Your task to perform on an android device: add a contact Image 0: 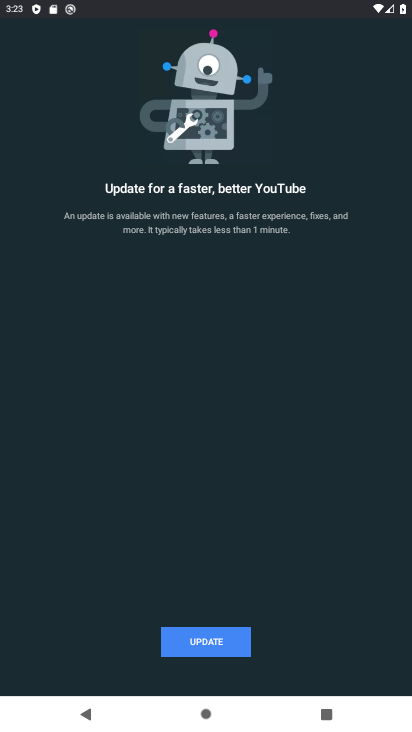
Step 0: press back button
Your task to perform on an android device: add a contact Image 1: 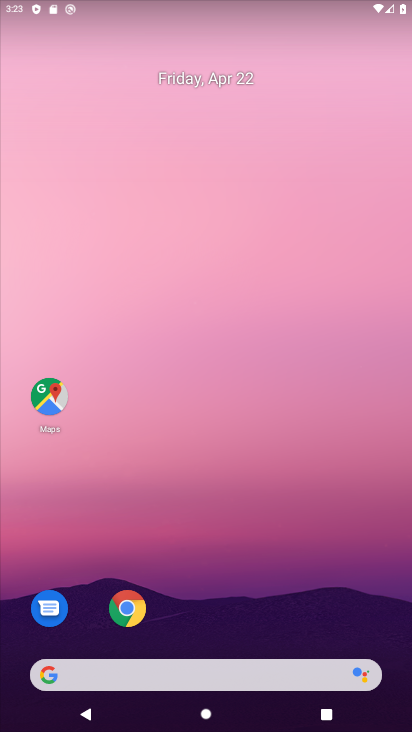
Step 1: drag from (283, 610) to (247, 132)
Your task to perform on an android device: add a contact Image 2: 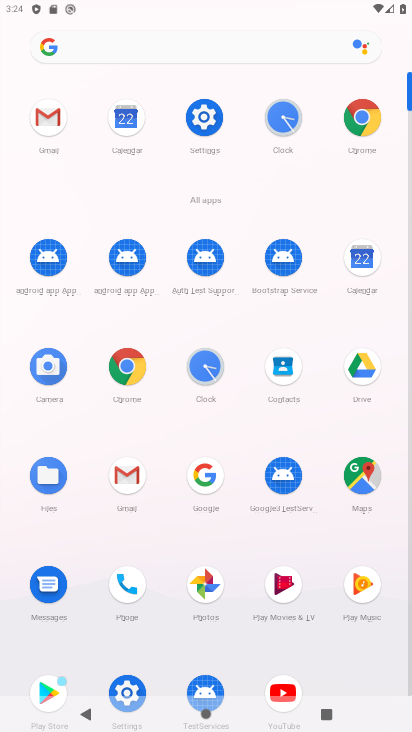
Step 2: click (291, 379)
Your task to perform on an android device: add a contact Image 3: 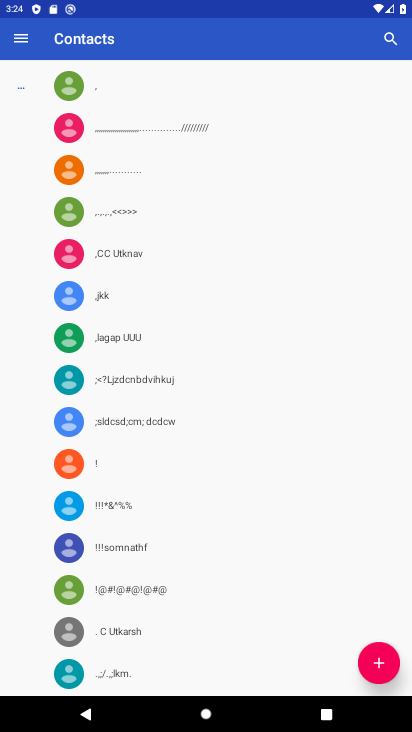
Step 3: click (392, 650)
Your task to perform on an android device: add a contact Image 4: 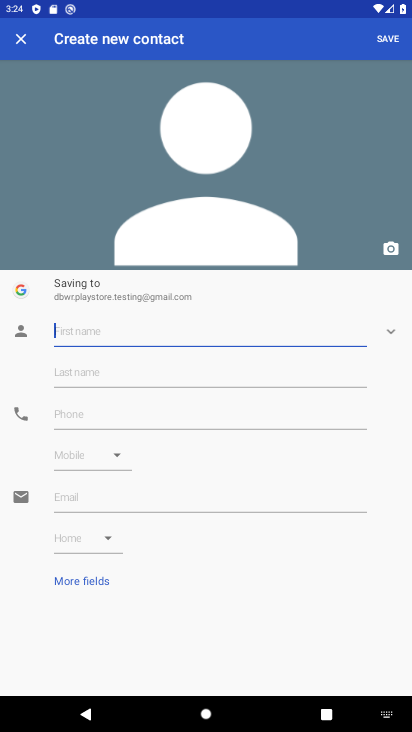
Step 4: click (221, 324)
Your task to perform on an android device: add a contact Image 5: 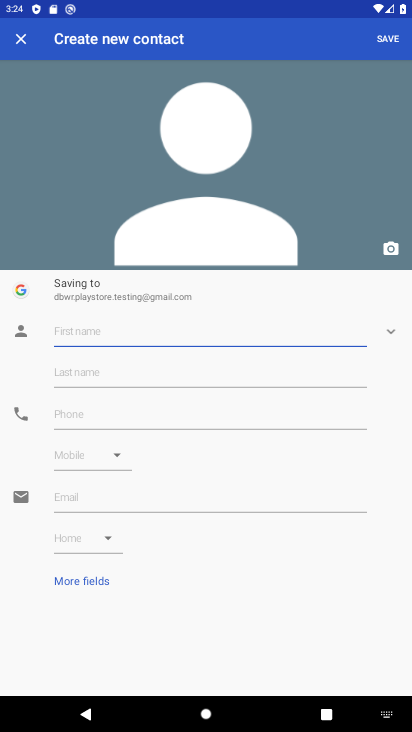
Step 5: type "hjkji"
Your task to perform on an android device: add a contact Image 6: 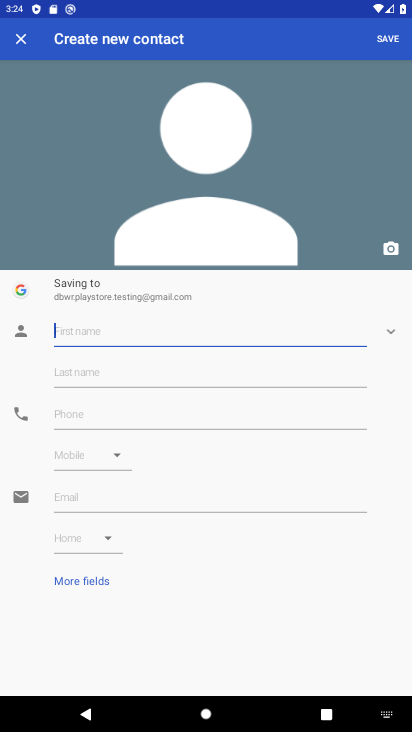
Step 6: click (365, 412)
Your task to perform on an android device: add a contact Image 7: 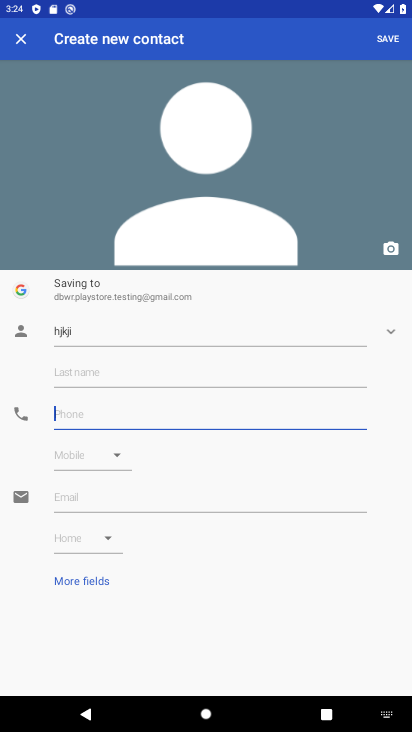
Step 7: type "53535"
Your task to perform on an android device: add a contact Image 8: 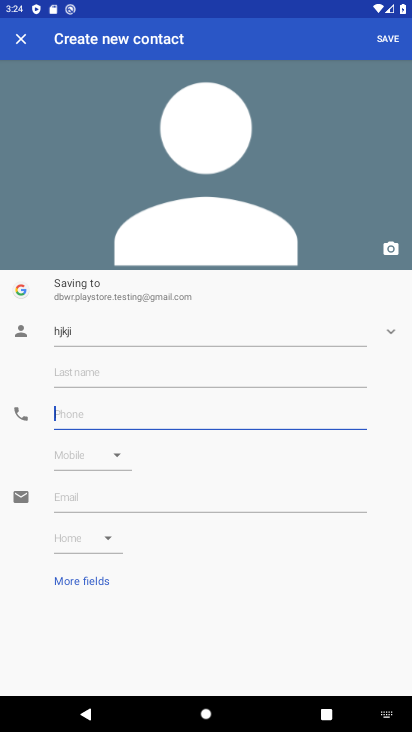
Step 8: click (260, 645)
Your task to perform on an android device: add a contact Image 9: 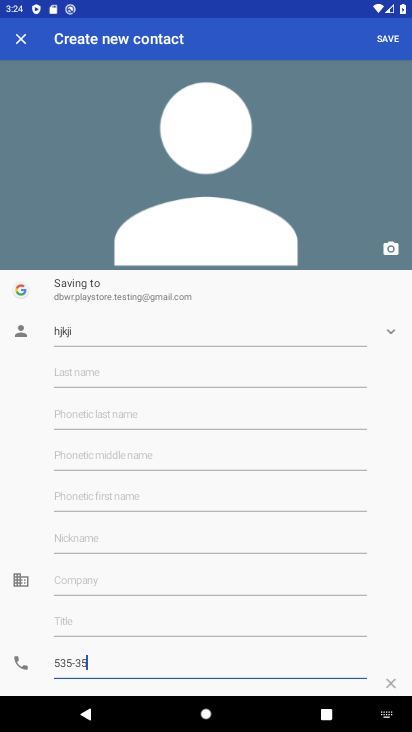
Step 9: click (372, 29)
Your task to perform on an android device: add a contact Image 10: 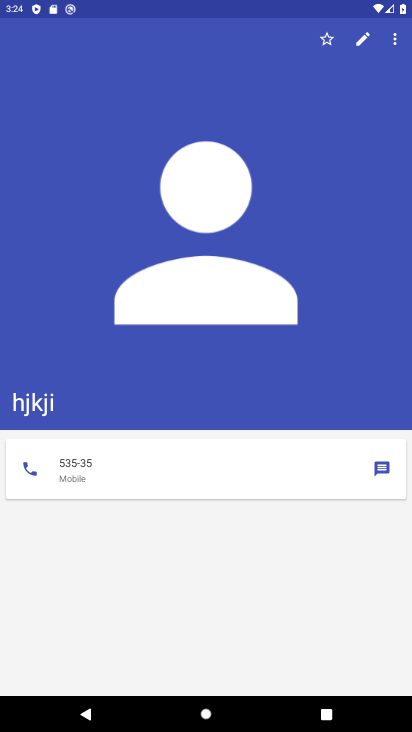
Step 10: task complete